Your task to perform on an android device: turn on airplane mode Image 0: 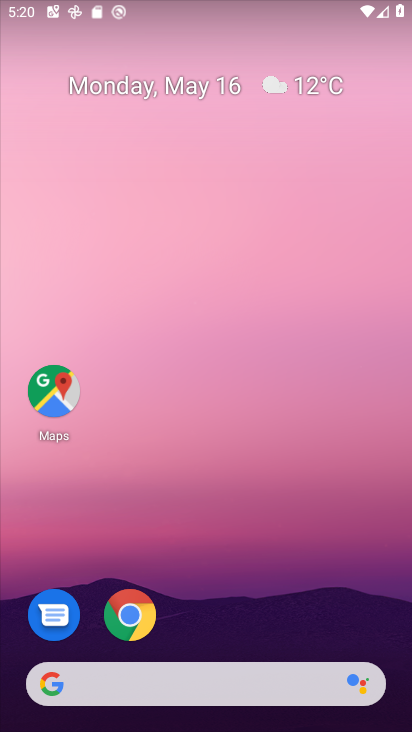
Step 0: drag from (233, 623) to (214, 187)
Your task to perform on an android device: turn on airplane mode Image 1: 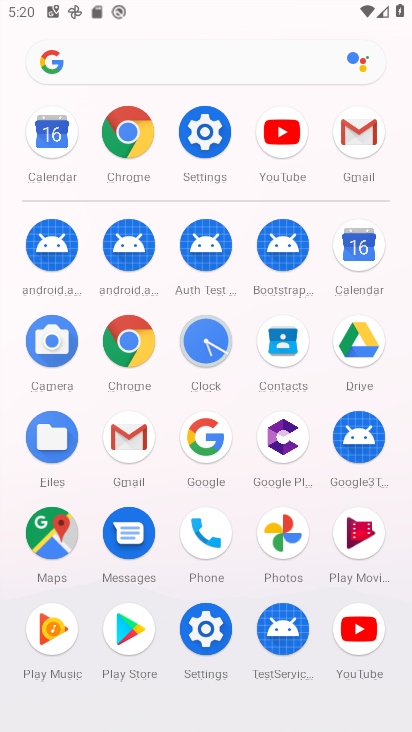
Step 1: click (200, 635)
Your task to perform on an android device: turn on airplane mode Image 2: 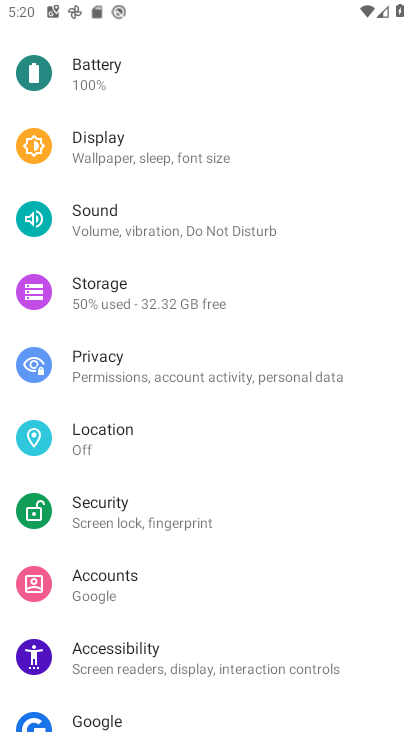
Step 2: drag from (174, 141) to (133, 549)
Your task to perform on an android device: turn on airplane mode Image 3: 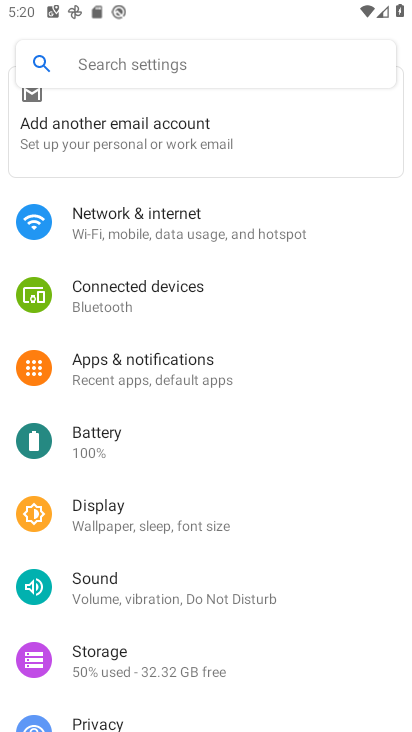
Step 3: click (149, 236)
Your task to perform on an android device: turn on airplane mode Image 4: 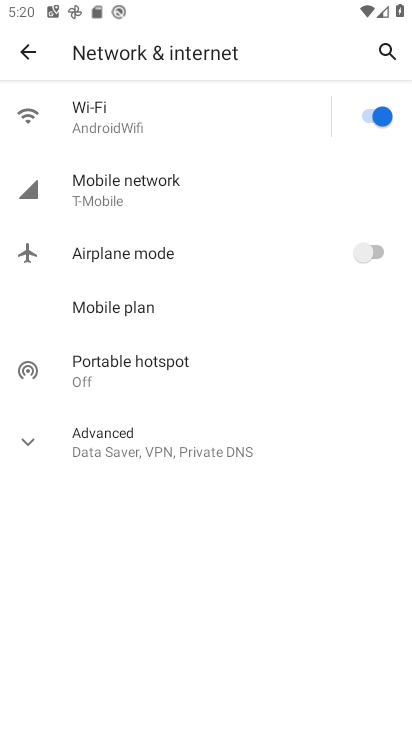
Step 4: click (384, 261)
Your task to perform on an android device: turn on airplane mode Image 5: 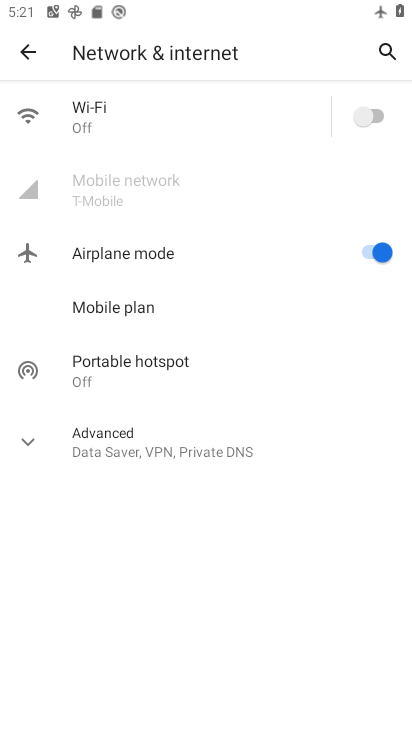
Step 5: task complete